Your task to perform on an android device: turn notification dots on Image 0: 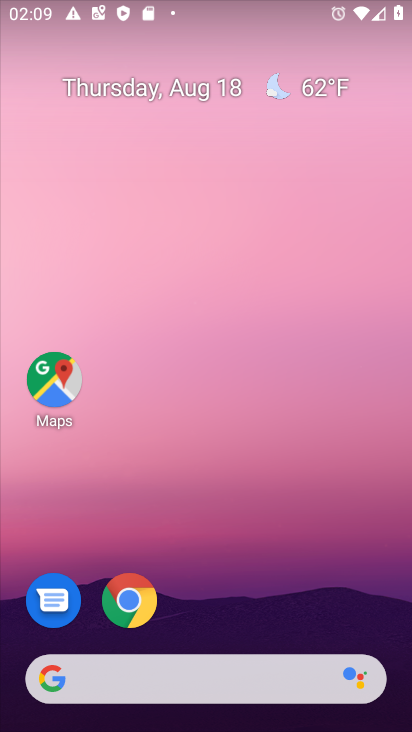
Step 0: press home button
Your task to perform on an android device: turn notification dots on Image 1: 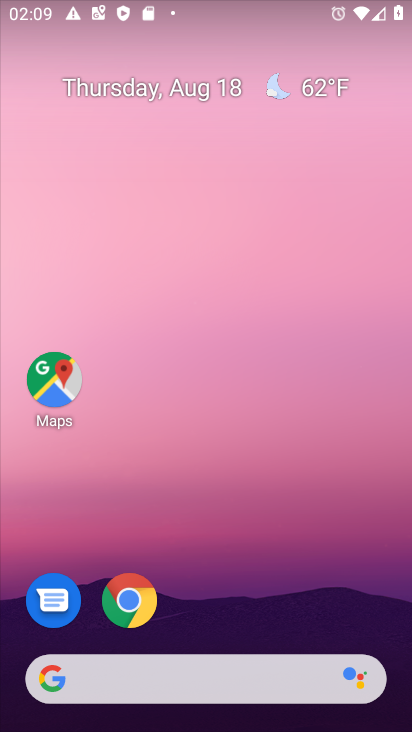
Step 1: drag from (261, 593) to (285, 38)
Your task to perform on an android device: turn notification dots on Image 2: 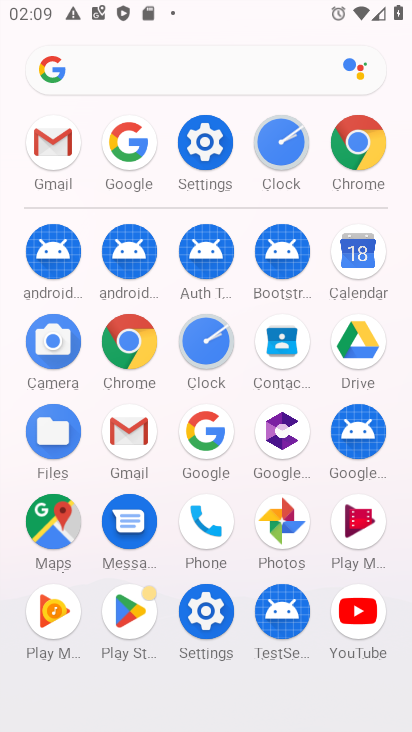
Step 2: click (199, 131)
Your task to perform on an android device: turn notification dots on Image 3: 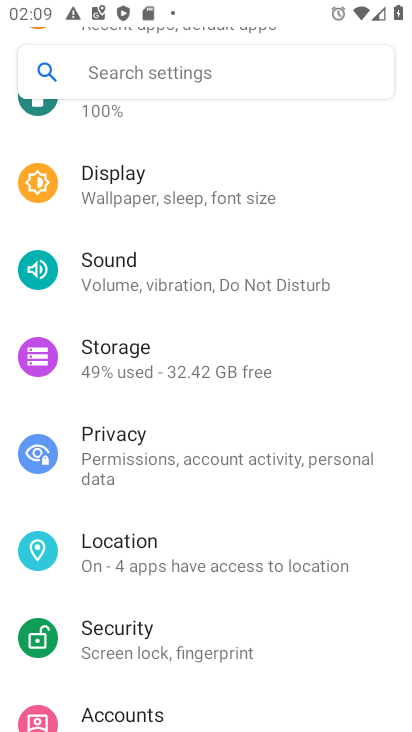
Step 3: drag from (143, 127) to (142, 586)
Your task to perform on an android device: turn notification dots on Image 4: 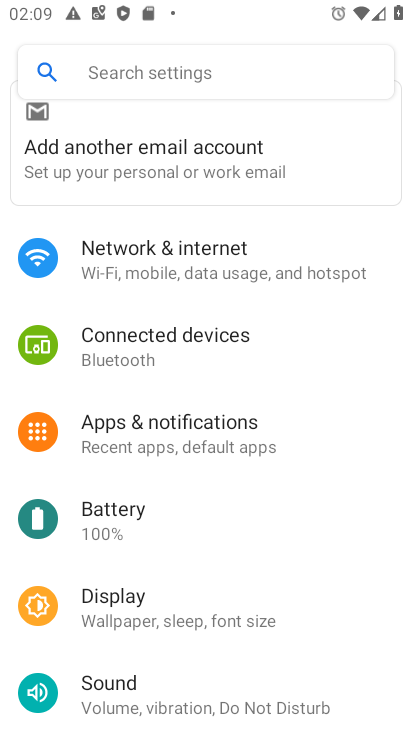
Step 4: click (100, 419)
Your task to perform on an android device: turn notification dots on Image 5: 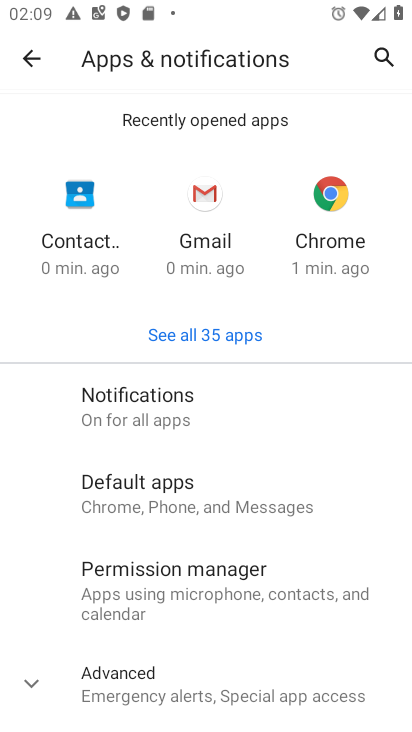
Step 5: click (139, 417)
Your task to perform on an android device: turn notification dots on Image 6: 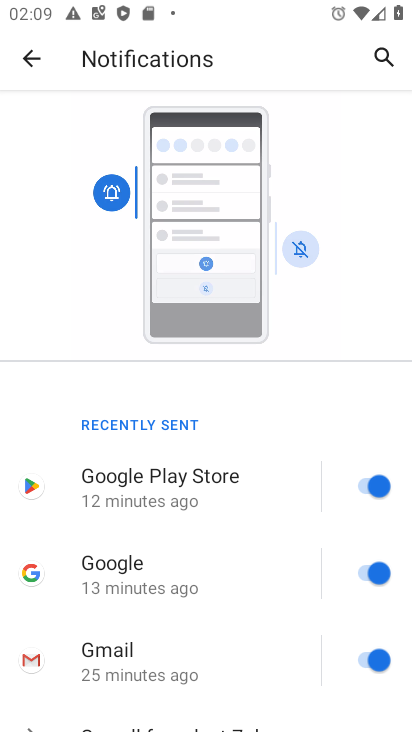
Step 6: drag from (241, 403) to (239, 48)
Your task to perform on an android device: turn notification dots on Image 7: 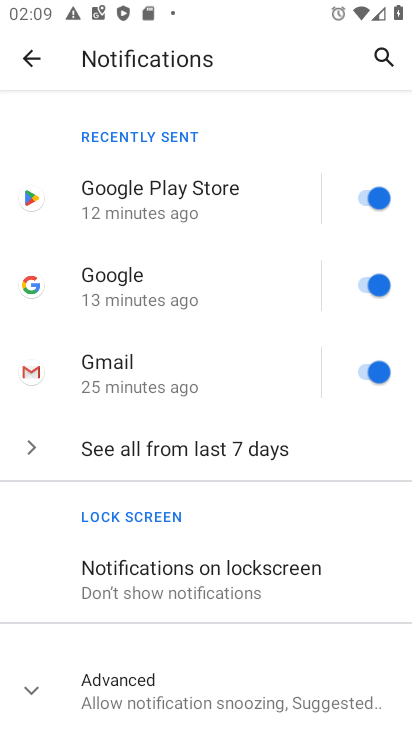
Step 7: drag from (201, 588) to (202, 324)
Your task to perform on an android device: turn notification dots on Image 8: 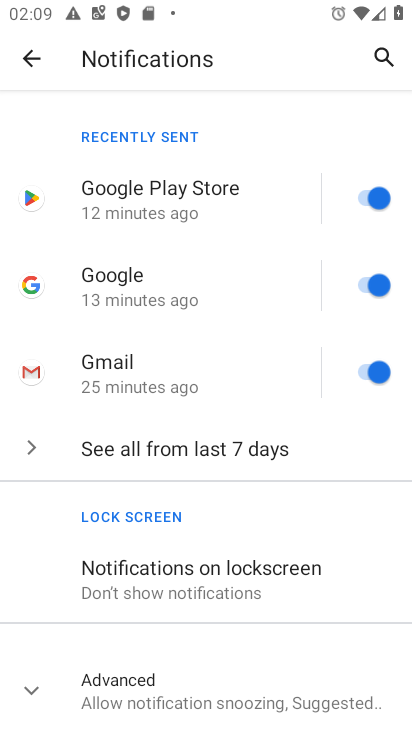
Step 8: click (25, 692)
Your task to perform on an android device: turn notification dots on Image 9: 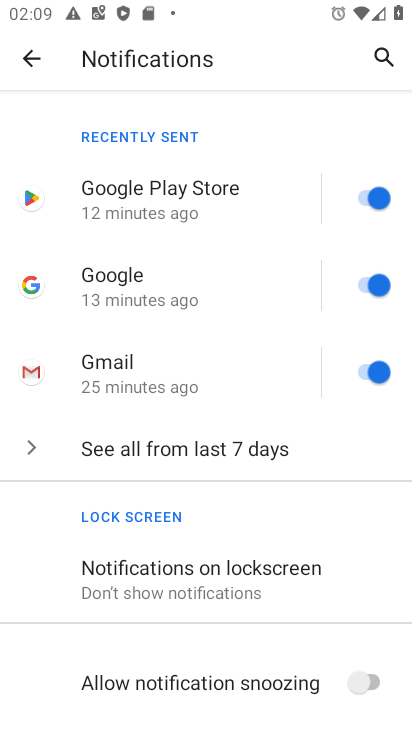
Step 9: task complete